Your task to perform on an android device: Open Google Chrome and click the shortcut for Amazon.com Image 0: 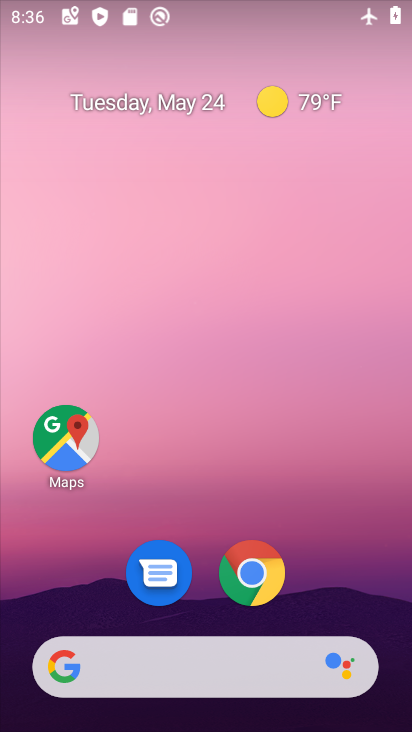
Step 0: drag from (400, 693) to (218, 110)
Your task to perform on an android device: Open Google Chrome and click the shortcut for Amazon.com Image 1: 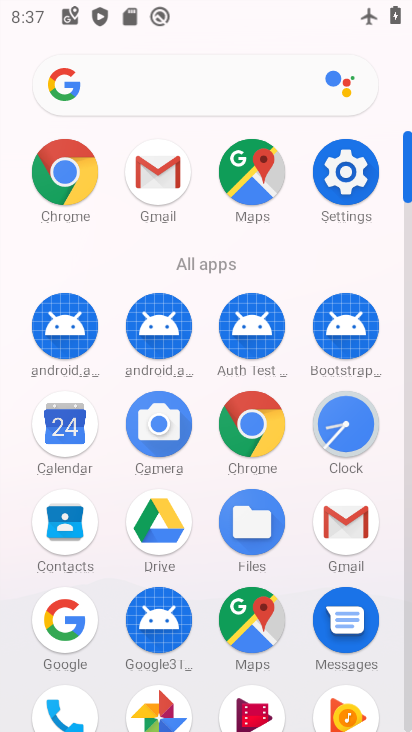
Step 1: click (265, 416)
Your task to perform on an android device: Open Google Chrome and click the shortcut for Amazon.com Image 2: 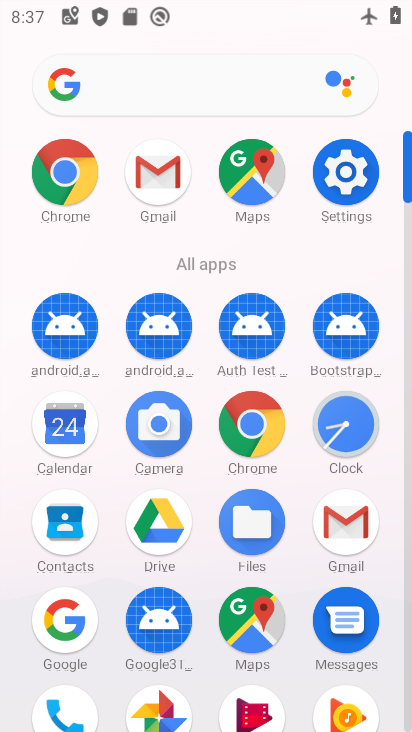
Step 2: click (258, 401)
Your task to perform on an android device: Open Google Chrome and click the shortcut for Amazon.com Image 3: 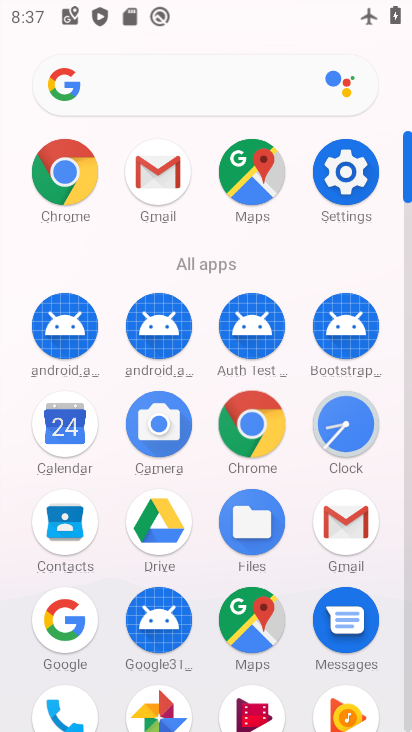
Step 3: click (259, 409)
Your task to perform on an android device: Open Google Chrome and click the shortcut for Amazon.com Image 4: 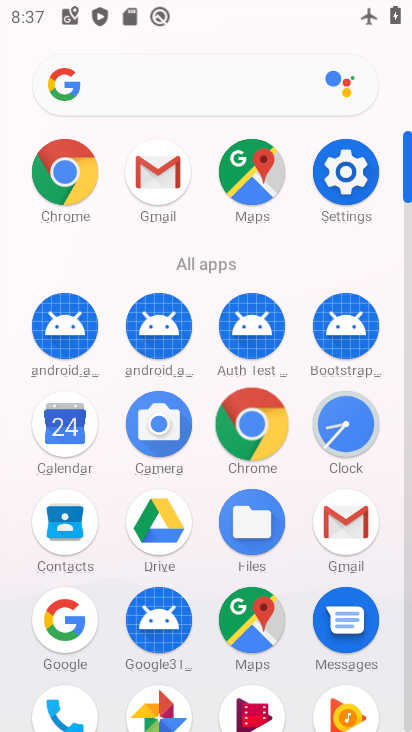
Step 4: click (260, 409)
Your task to perform on an android device: Open Google Chrome and click the shortcut for Amazon.com Image 5: 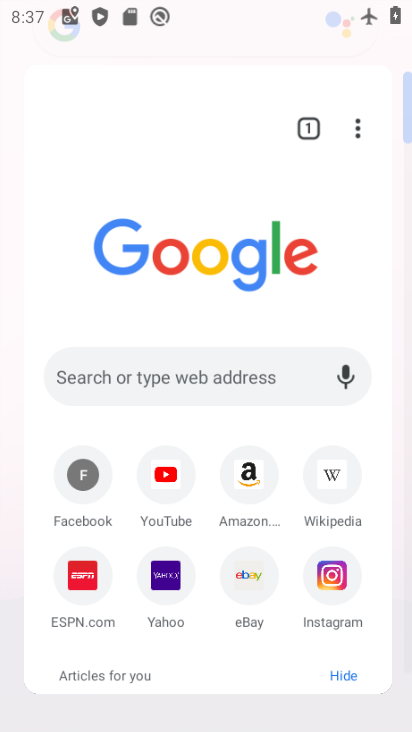
Step 5: click (260, 409)
Your task to perform on an android device: Open Google Chrome and click the shortcut for Amazon.com Image 6: 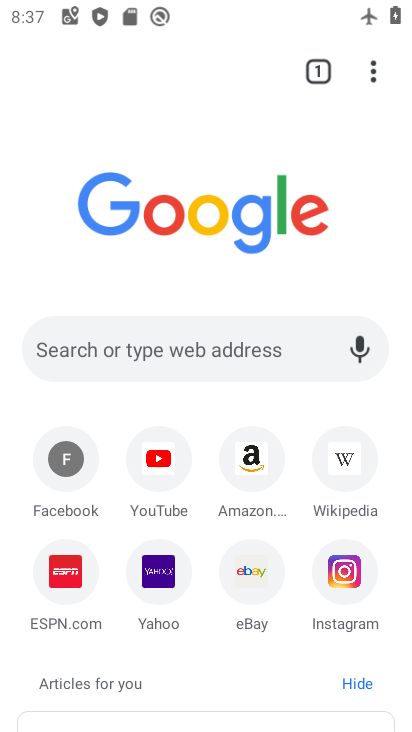
Step 6: click (261, 410)
Your task to perform on an android device: Open Google Chrome and click the shortcut for Amazon.com Image 7: 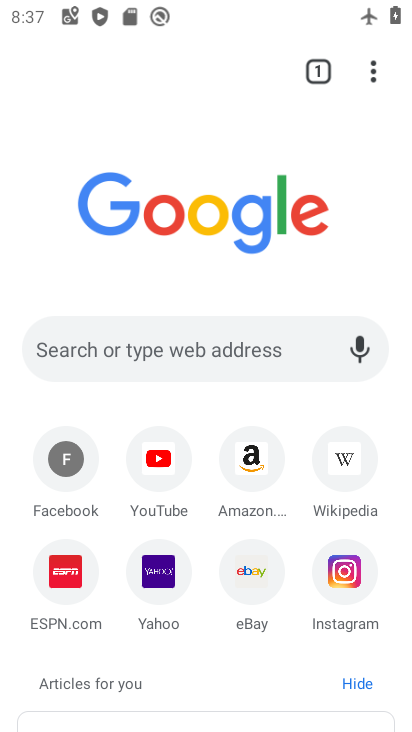
Step 7: click (261, 410)
Your task to perform on an android device: Open Google Chrome and click the shortcut for Amazon.com Image 8: 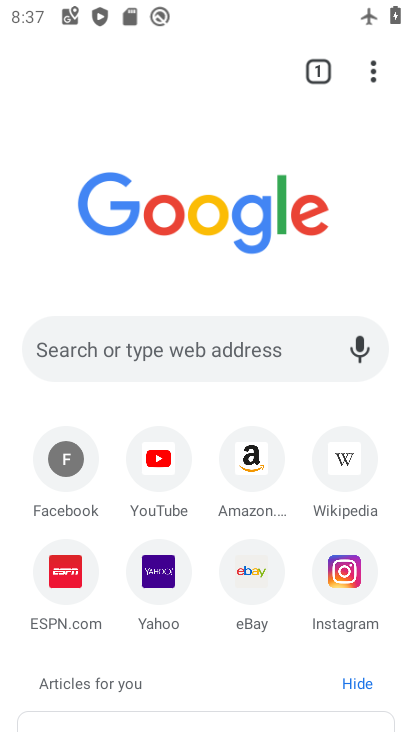
Step 8: click (261, 459)
Your task to perform on an android device: Open Google Chrome and click the shortcut for Amazon.com Image 9: 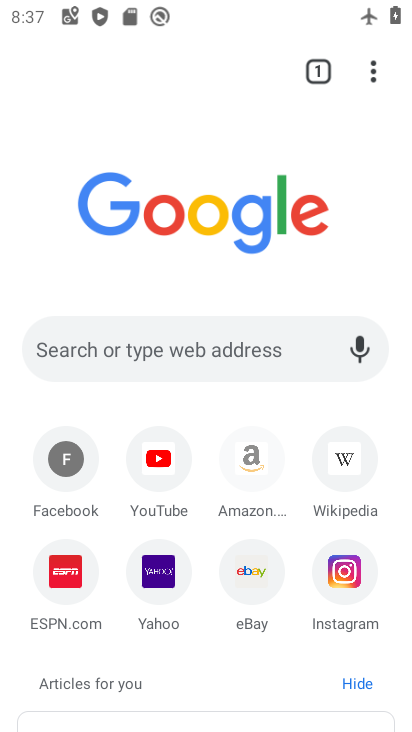
Step 9: click (259, 460)
Your task to perform on an android device: Open Google Chrome and click the shortcut for Amazon.com Image 10: 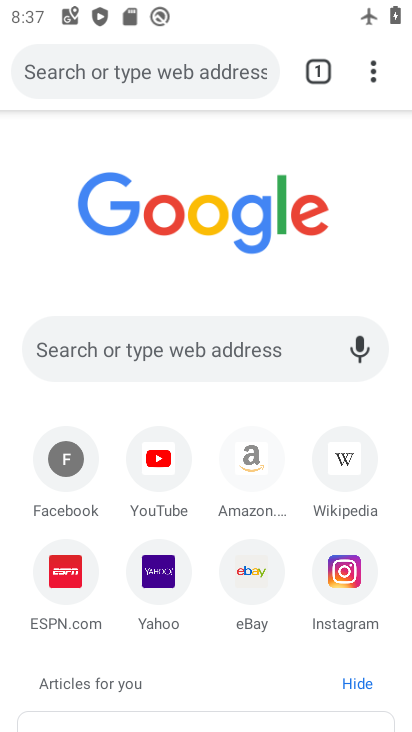
Step 10: click (258, 459)
Your task to perform on an android device: Open Google Chrome and click the shortcut for Amazon.com Image 11: 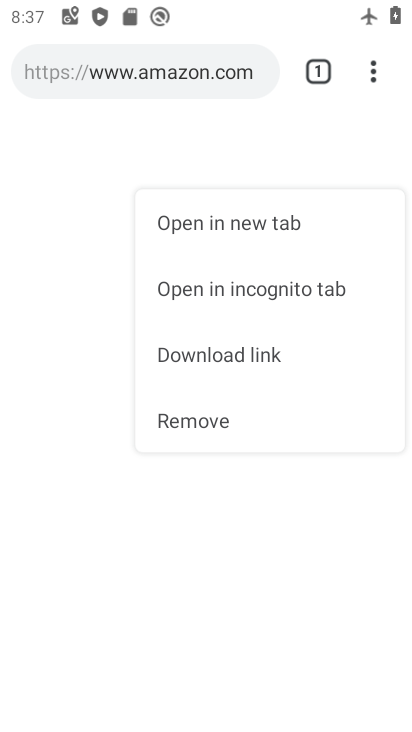
Step 11: click (258, 459)
Your task to perform on an android device: Open Google Chrome and click the shortcut for Amazon.com Image 12: 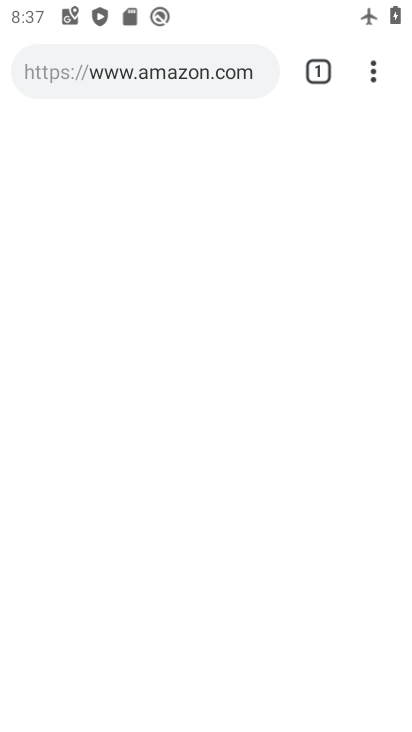
Step 12: click (259, 458)
Your task to perform on an android device: Open Google Chrome and click the shortcut for Amazon.com Image 13: 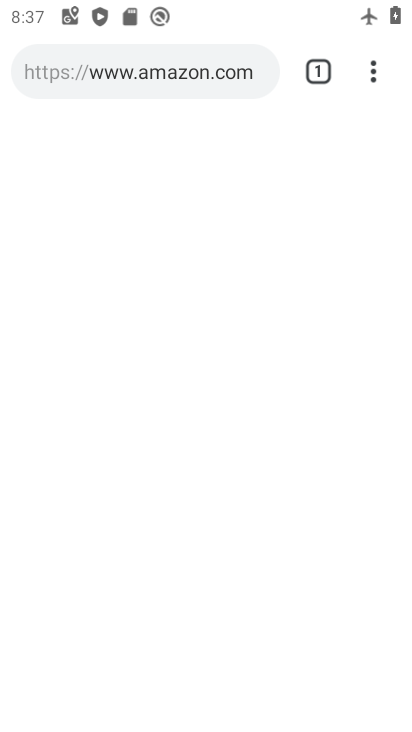
Step 13: click (259, 458)
Your task to perform on an android device: Open Google Chrome and click the shortcut for Amazon.com Image 14: 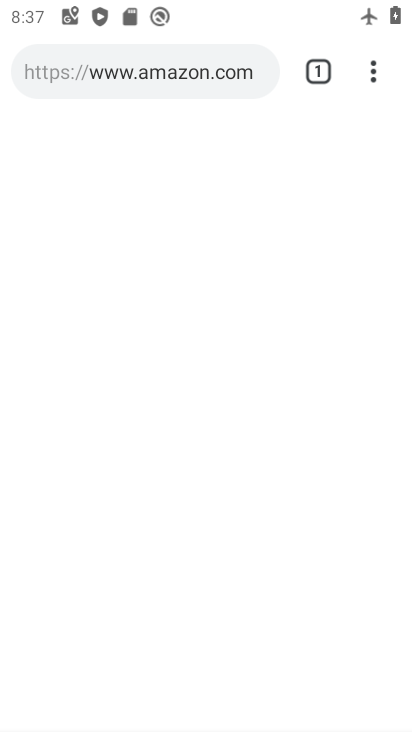
Step 14: click (259, 458)
Your task to perform on an android device: Open Google Chrome and click the shortcut for Amazon.com Image 15: 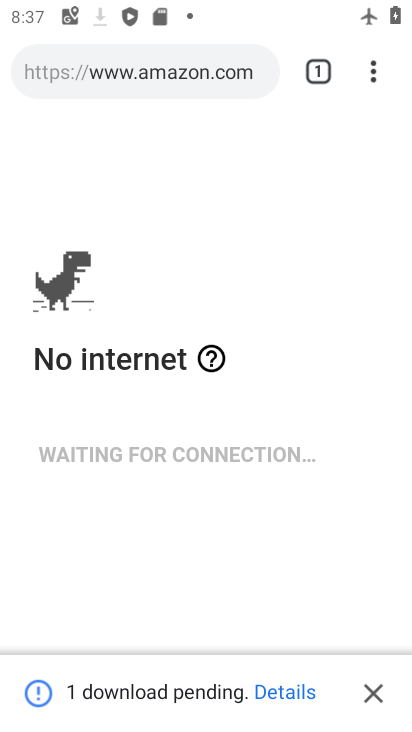
Step 15: task complete